Your task to perform on an android device: Open battery settings Image 0: 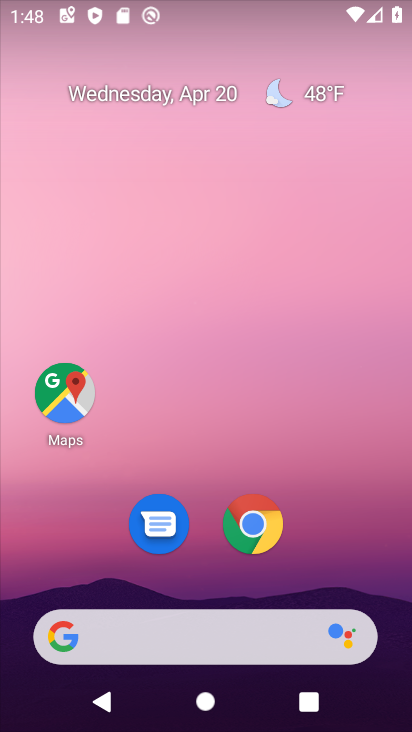
Step 0: drag from (369, 551) to (318, 90)
Your task to perform on an android device: Open battery settings Image 1: 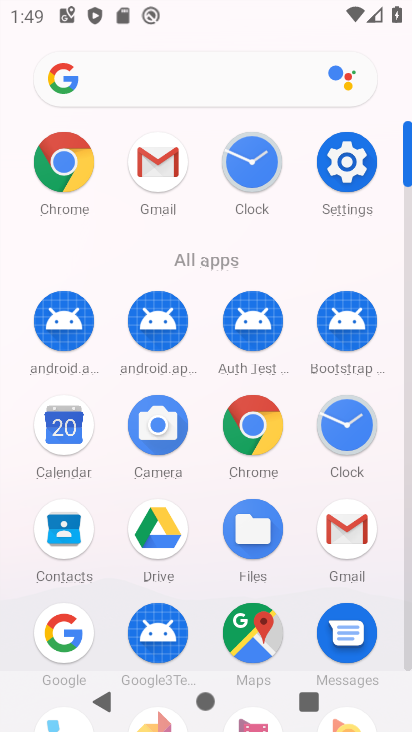
Step 1: click (351, 163)
Your task to perform on an android device: Open battery settings Image 2: 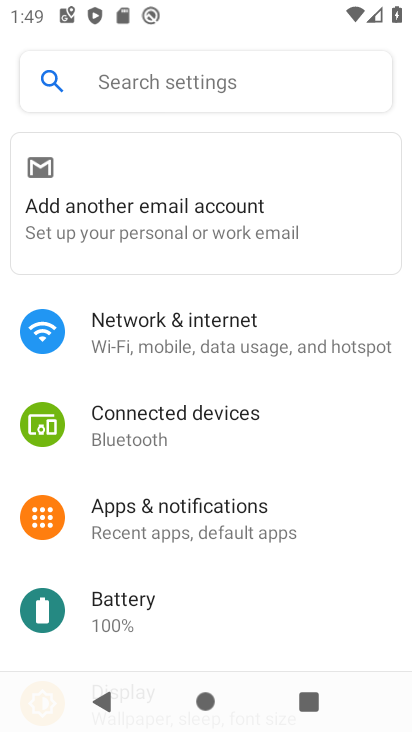
Step 2: click (234, 597)
Your task to perform on an android device: Open battery settings Image 3: 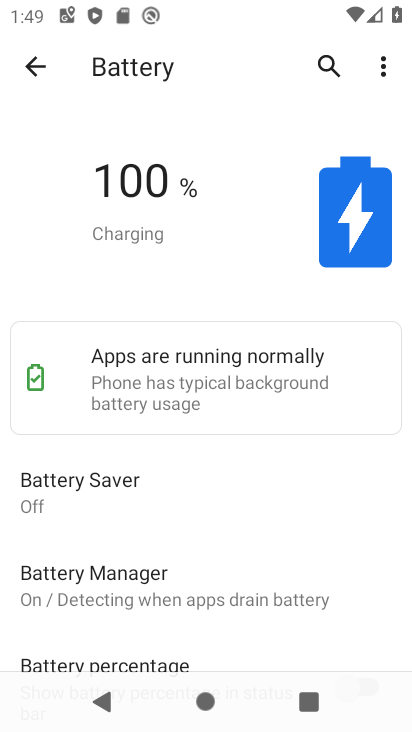
Step 3: task complete